Your task to perform on an android device: turn off data saver in the chrome app Image 0: 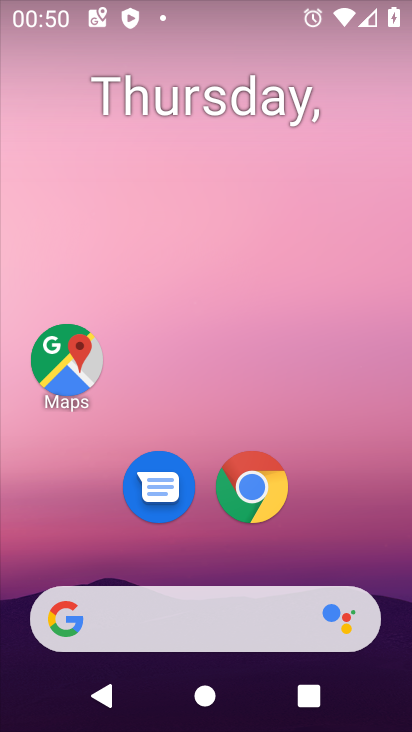
Step 0: click (256, 497)
Your task to perform on an android device: turn off data saver in the chrome app Image 1: 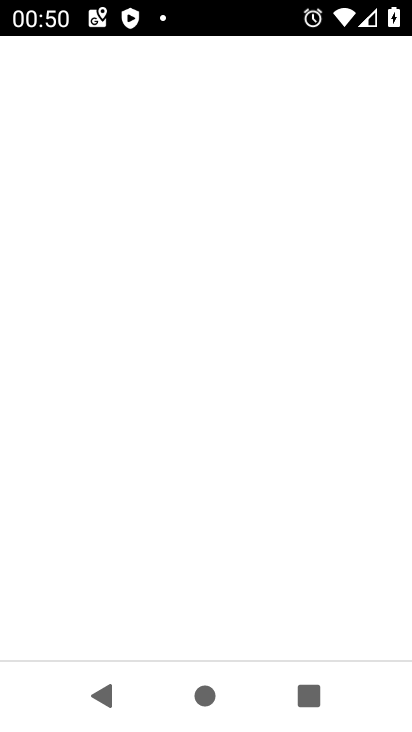
Step 1: click (256, 497)
Your task to perform on an android device: turn off data saver in the chrome app Image 2: 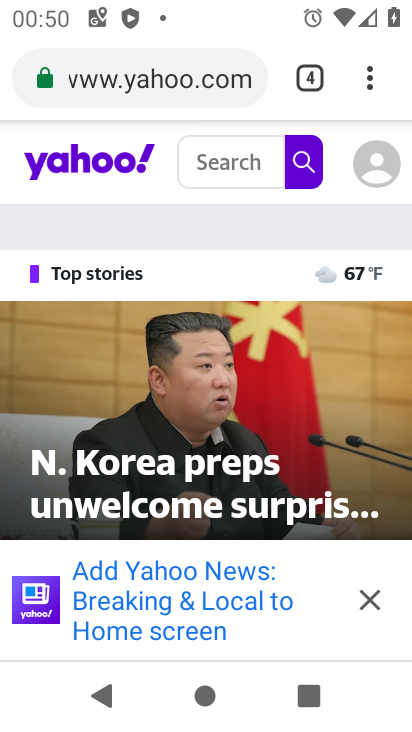
Step 2: click (365, 76)
Your task to perform on an android device: turn off data saver in the chrome app Image 3: 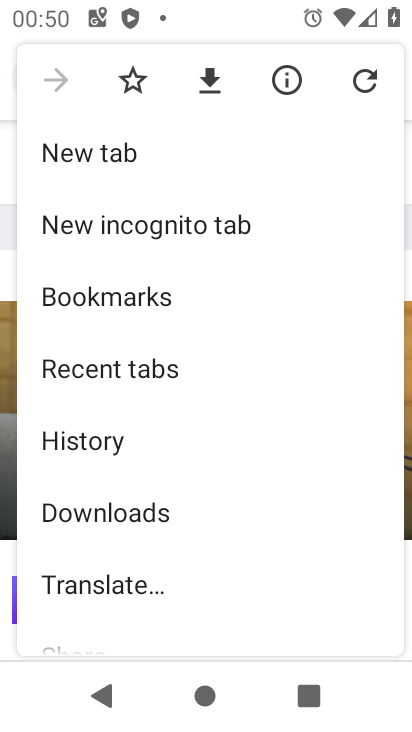
Step 3: drag from (295, 493) to (293, 138)
Your task to perform on an android device: turn off data saver in the chrome app Image 4: 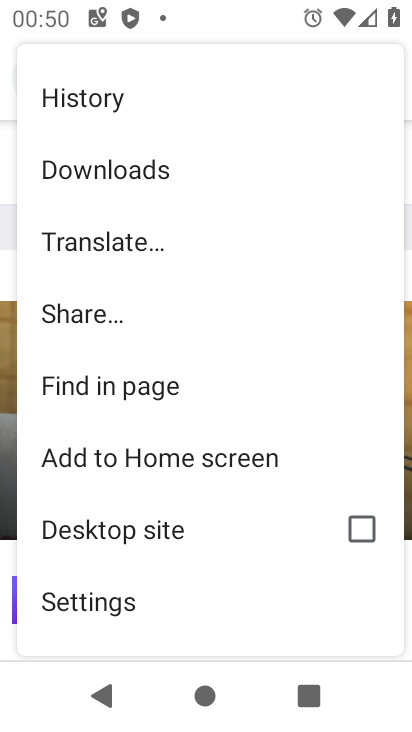
Step 4: click (122, 609)
Your task to perform on an android device: turn off data saver in the chrome app Image 5: 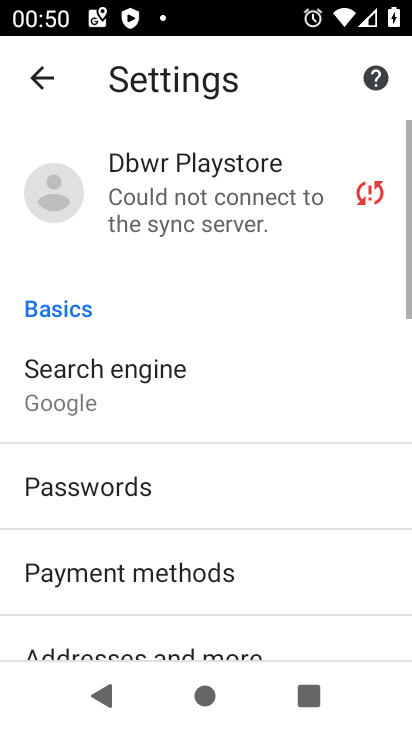
Step 5: drag from (128, 572) to (149, 98)
Your task to perform on an android device: turn off data saver in the chrome app Image 6: 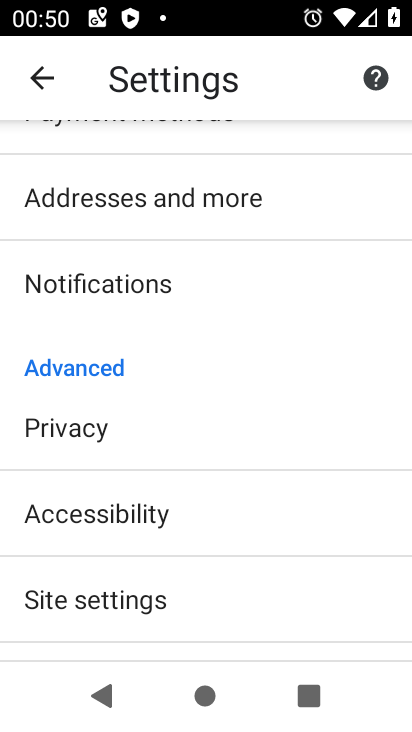
Step 6: drag from (134, 568) to (158, 289)
Your task to perform on an android device: turn off data saver in the chrome app Image 7: 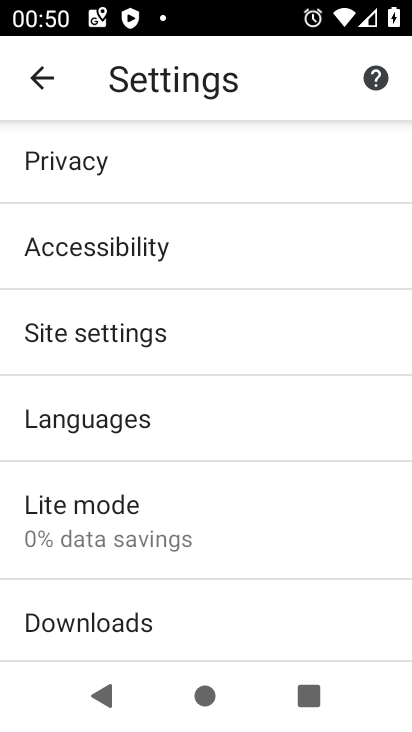
Step 7: click (97, 516)
Your task to perform on an android device: turn off data saver in the chrome app Image 8: 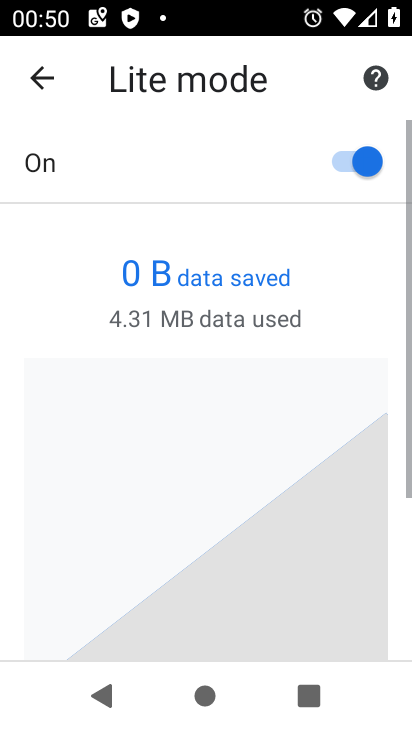
Step 8: click (366, 170)
Your task to perform on an android device: turn off data saver in the chrome app Image 9: 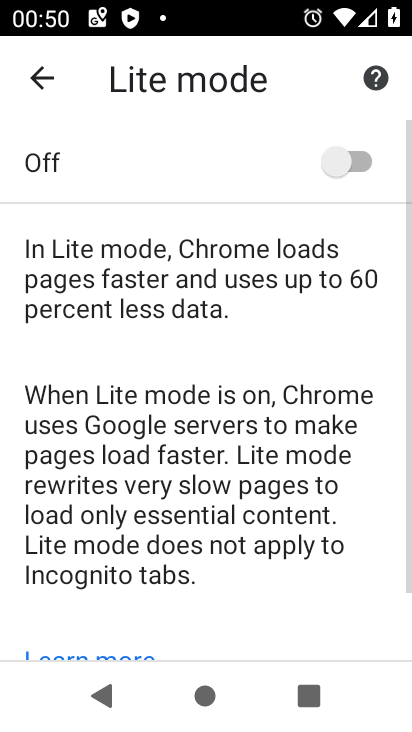
Step 9: task complete